Your task to perform on an android device: change text size in settings app Image 0: 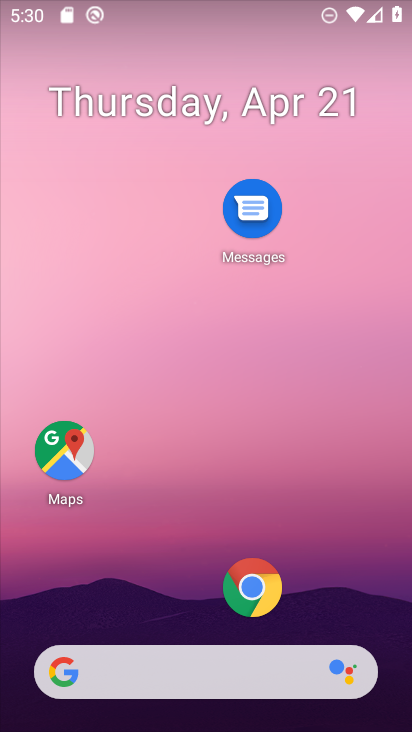
Step 0: drag from (195, 625) to (227, 160)
Your task to perform on an android device: change text size in settings app Image 1: 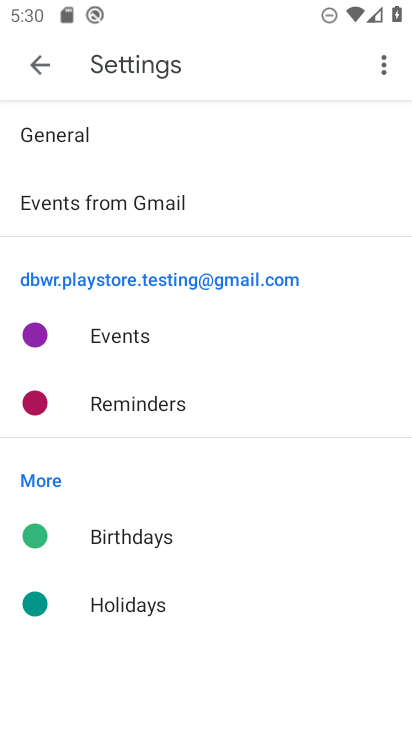
Step 1: press home button
Your task to perform on an android device: change text size in settings app Image 2: 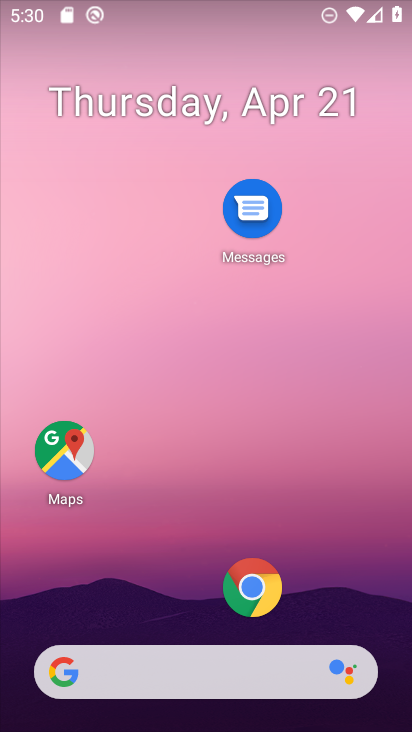
Step 2: drag from (199, 617) to (189, 65)
Your task to perform on an android device: change text size in settings app Image 3: 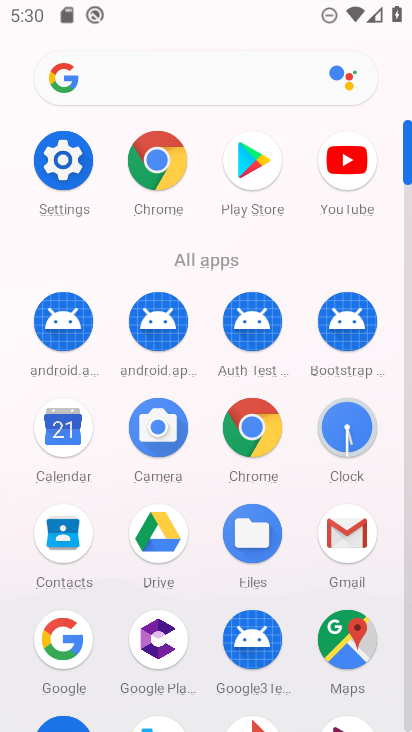
Step 3: click (53, 151)
Your task to perform on an android device: change text size in settings app Image 4: 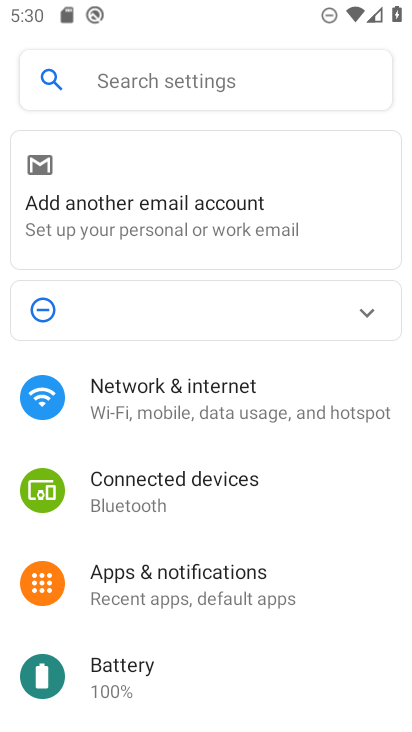
Step 4: drag from (158, 651) to (146, 261)
Your task to perform on an android device: change text size in settings app Image 5: 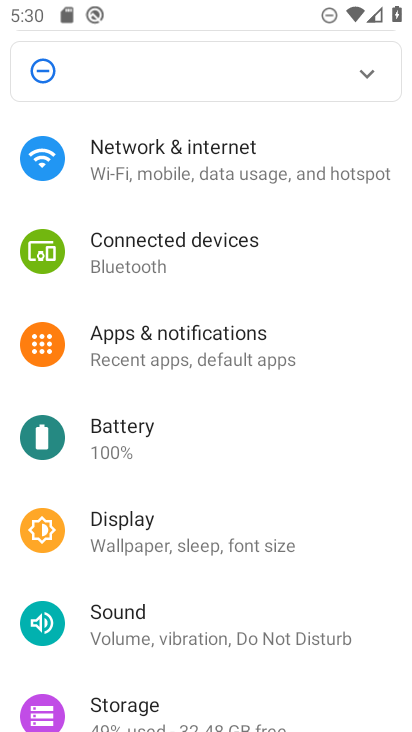
Step 5: click (128, 519)
Your task to perform on an android device: change text size in settings app Image 6: 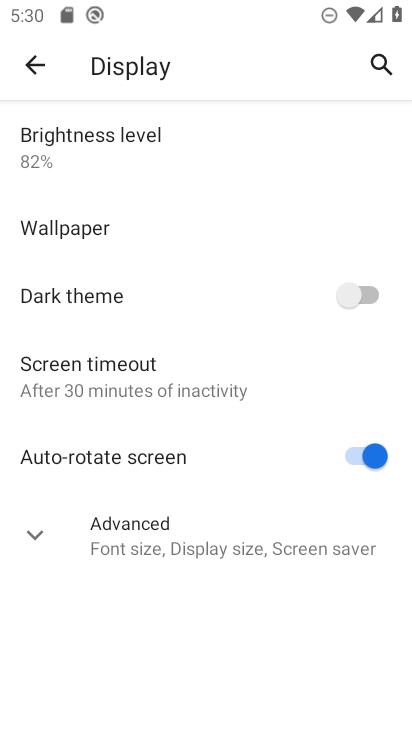
Step 6: click (61, 532)
Your task to perform on an android device: change text size in settings app Image 7: 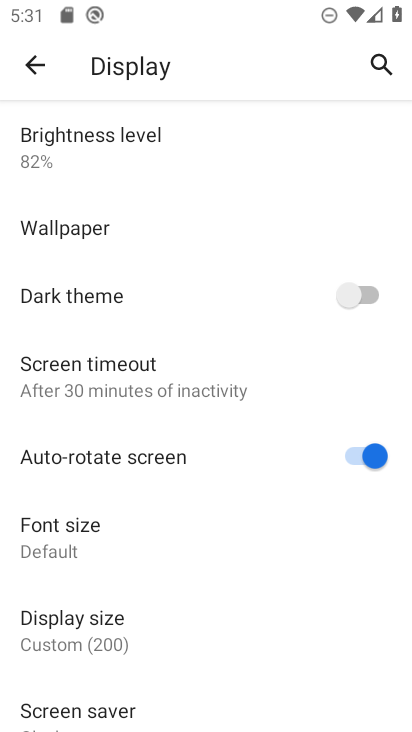
Step 7: click (102, 553)
Your task to perform on an android device: change text size in settings app Image 8: 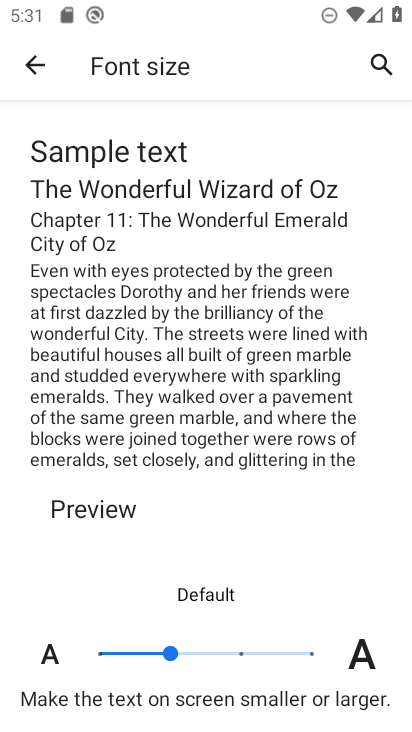
Step 8: click (100, 645)
Your task to perform on an android device: change text size in settings app Image 9: 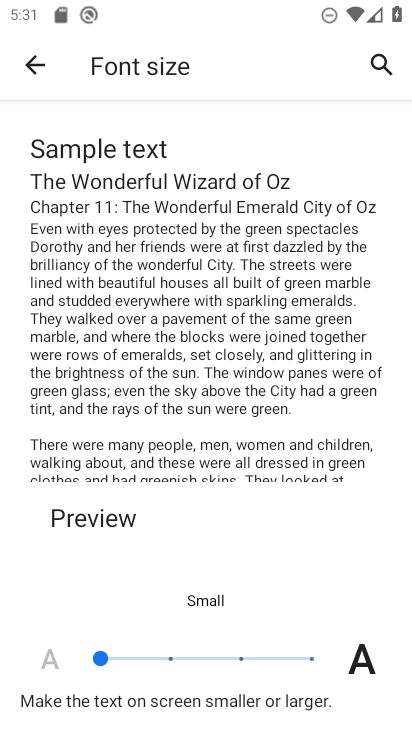
Step 9: task complete